Your task to perform on an android device: Go to internet settings Image 0: 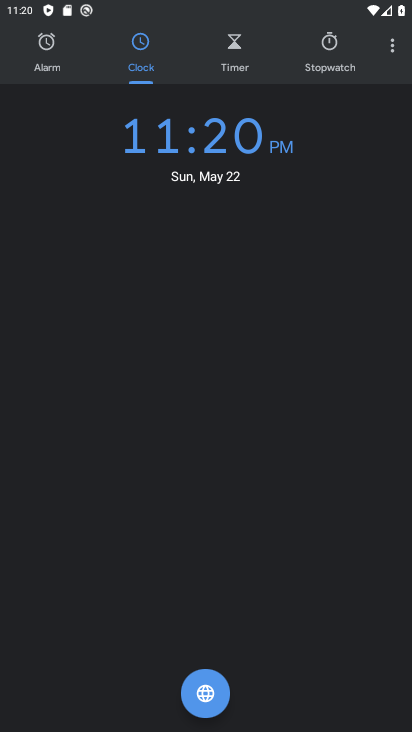
Step 0: press home button
Your task to perform on an android device: Go to internet settings Image 1: 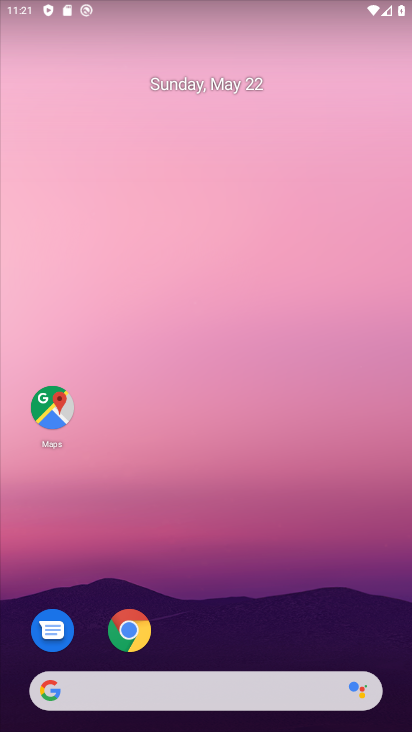
Step 1: drag from (242, 563) to (272, 154)
Your task to perform on an android device: Go to internet settings Image 2: 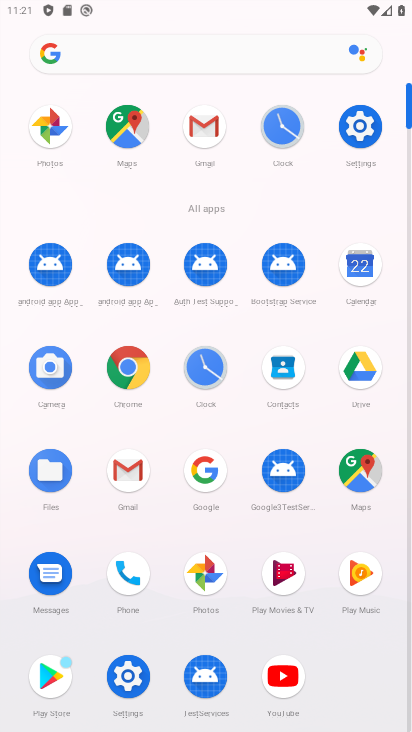
Step 2: click (370, 126)
Your task to perform on an android device: Go to internet settings Image 3: 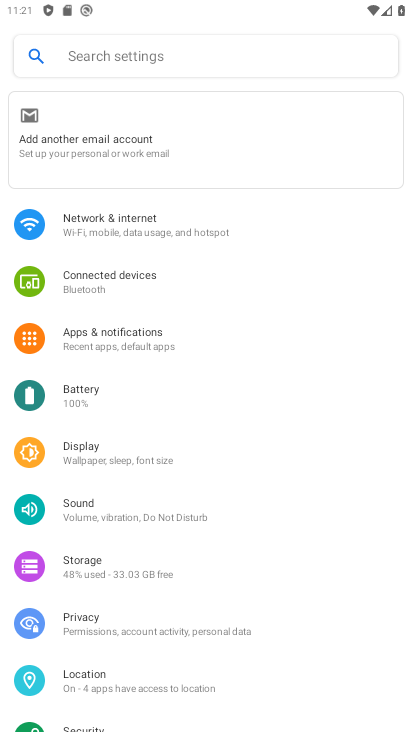
Step 3: click (166, 237)
Your task to perform on an android device: Go to internet settings Image 4: 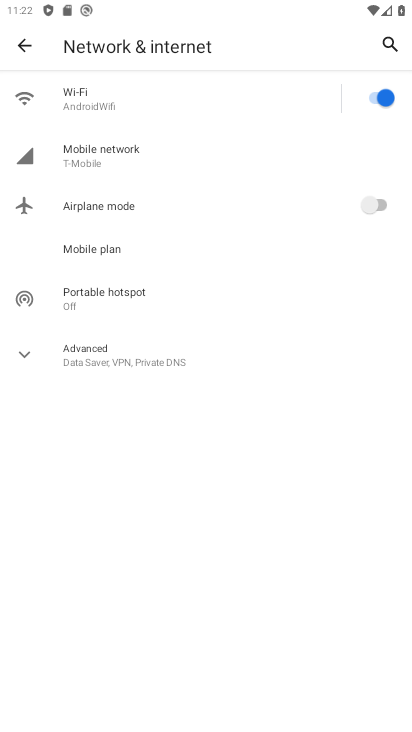
Step 4: click (180, 154)
Your task to perform on an android device: Go to internet settings Image 5: 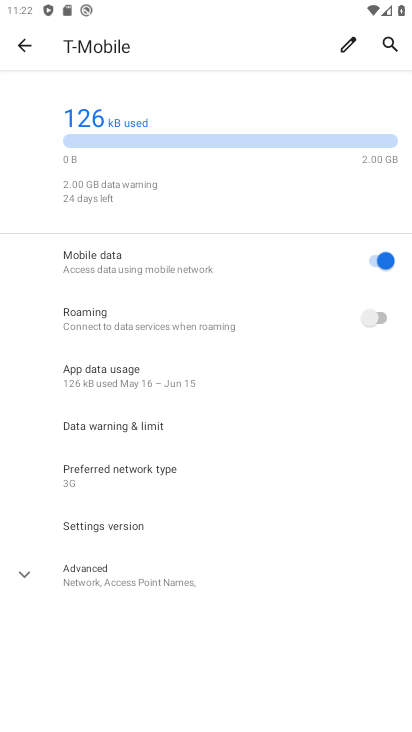
Step 5: task complete